Your task to perform on an android device: Go to Amazon Image 0: 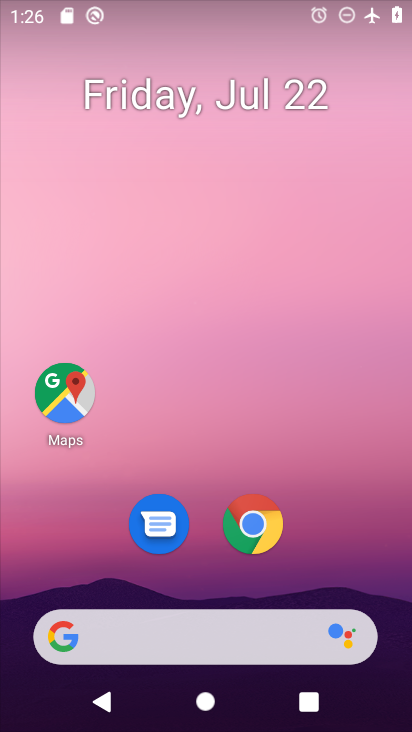
Step 0: drag from (355, 372) to (341, 89)
Your task to perform on an android device: Go to Amazon Image 1: 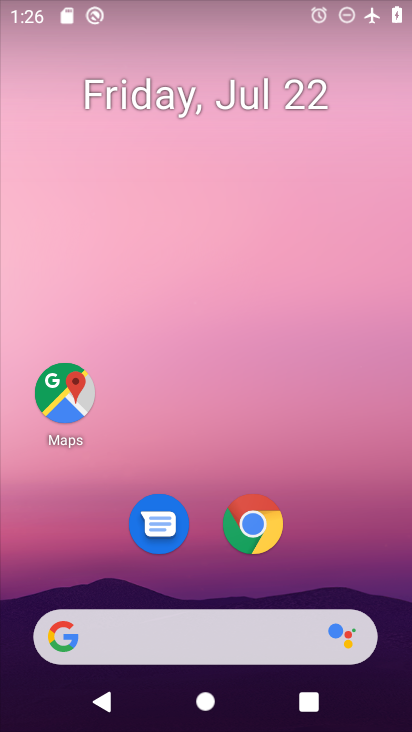
Step 1: click (257, 515)
Your task to perform on an android device: Go to Amazon Image 2: 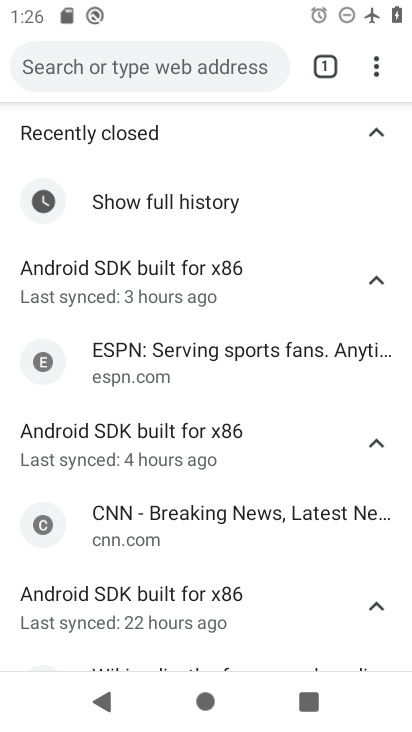
Step 2: press back button
Your task to perform on an android device: Go to Amazon Image 3: 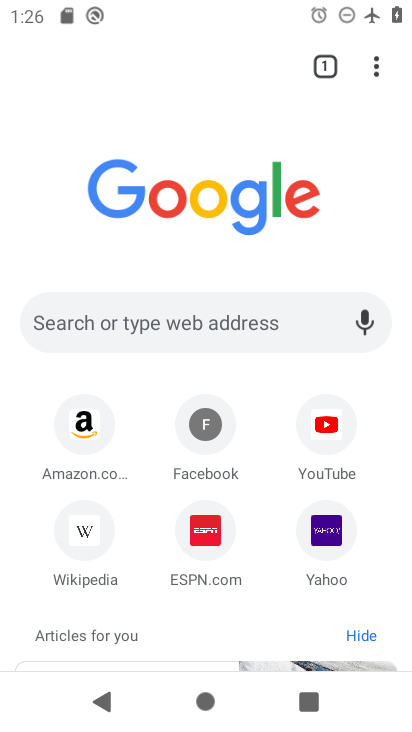
Step 3: click (89, 418)
Your task to perform on an android device: Go to Amazon Image 4: 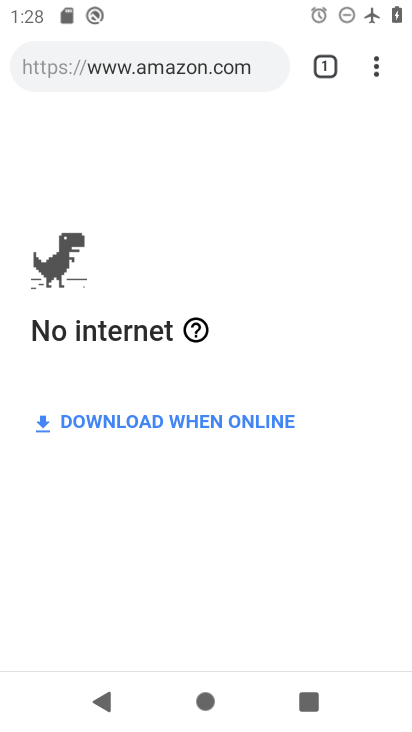
Step 4: task complete